Your task to perform on an android device: Set the phone to "Do not disturb". Image 0: 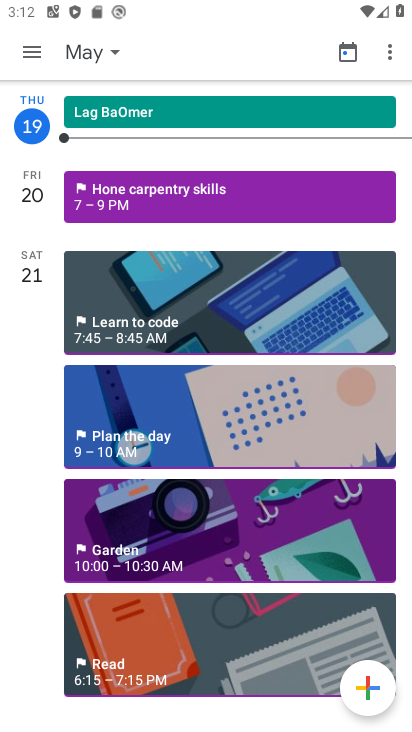
Step 0: drag from (267, 617) to (315, 97)
Your task to perform on an android device: Set the phone to "Do not disturb". Image 1: 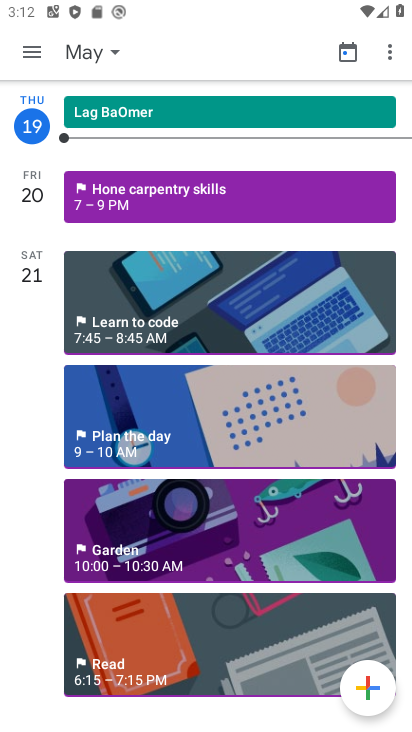
Step 1: press home button
Your task to perform on an android device: Set the phone to "Do not disturb". Image 2: 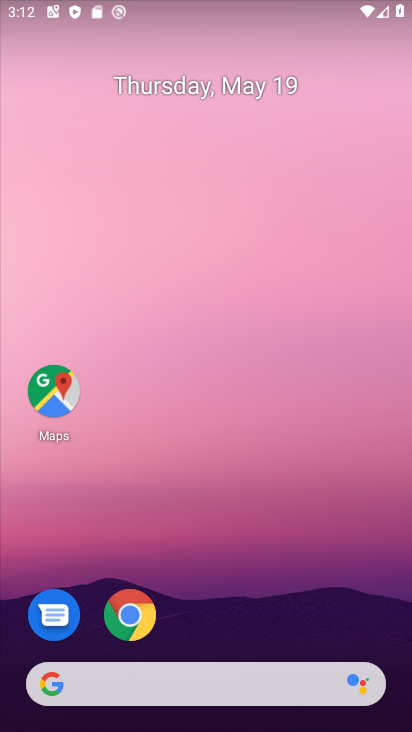
Step 2: drag from (189, 5) to (189, 354)
Your task to perform on an android device: Set the phone to "Do not disturb". Image 3: 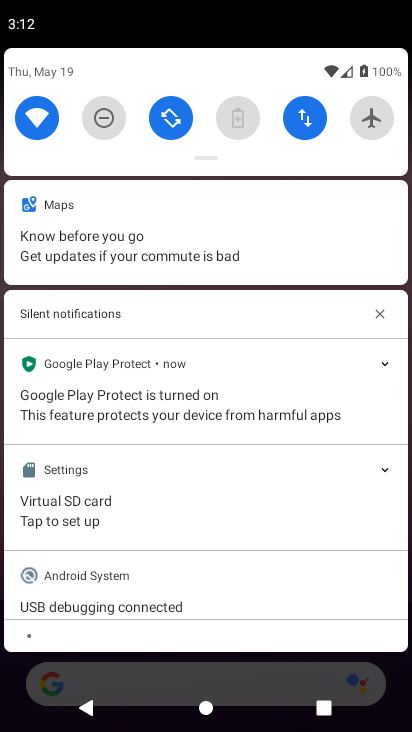
Step 3: click (109, 117)
Your task to perform on an android device: Set the phone to "Do not disturb". Image 4: 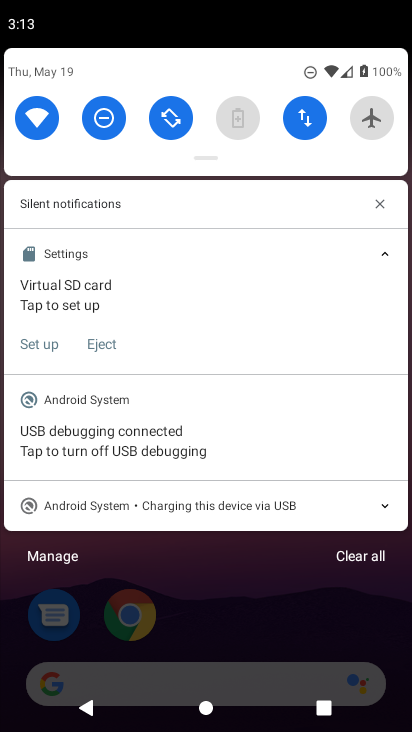
Step 4: task complete